Your task to perform on an android device: check google app version Image 0: 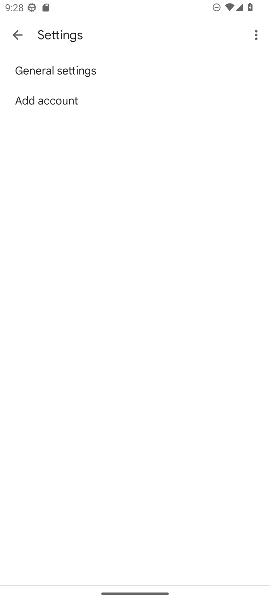
Step 0: press home button
Your task to perform on an android device: check google app version Image 1: 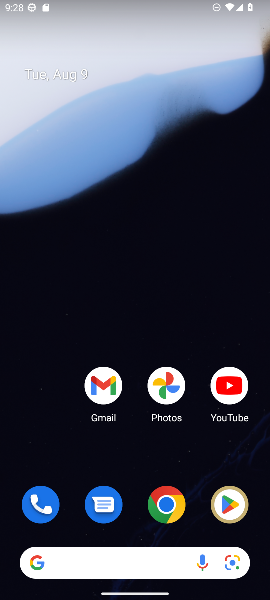
Step 1: drag from (132, 468) to (127, 123)
Your task to perform on an android device: check google app version Image 2: 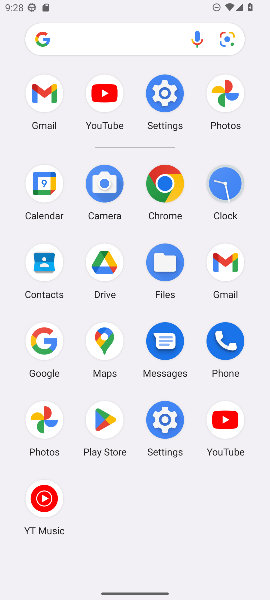
Step 2: click (43, 342)
Your task to perform on an android device: check google app version Image 3: 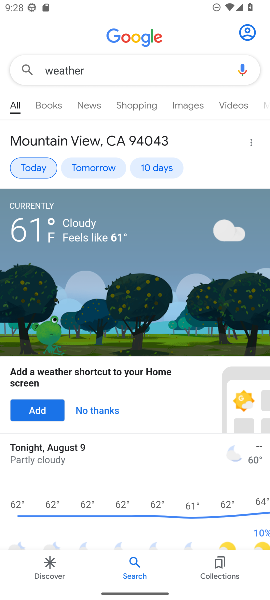
Step 3: click (248, 32)
Your task to perform on an android device: check google app version Image 4: 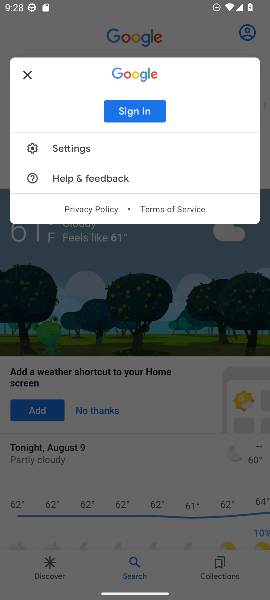
Step 4: click (65, 150)
Your task to perform on an android device: check google app version Image 5: 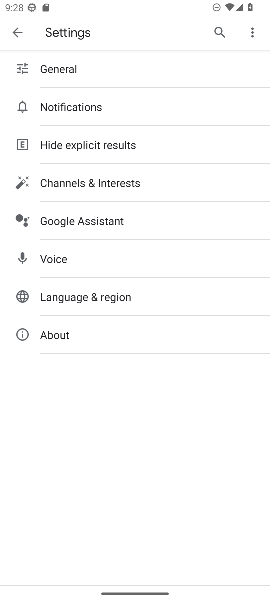
Step 5: click (56, 330)
Your task to perform on an android device: check google app version Image 6: 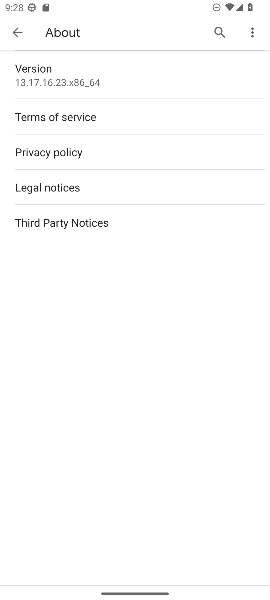
Step 6: task complete